Your task to perform on an android device: Open the Play Movies app and select the watchlist tab. Image 0: 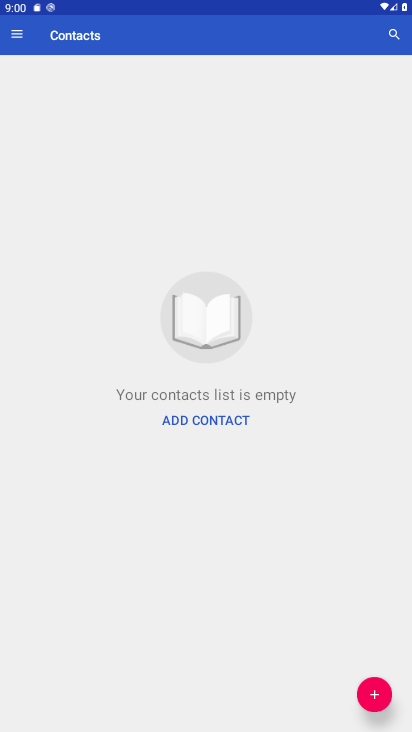
Step 0: press back button
Your task to perform on an android device: Open the Play Movies app and select the watchlist tab. Image 1: 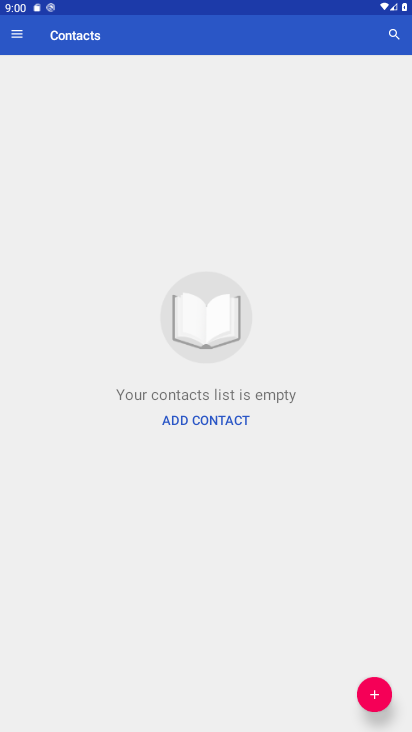
Step 1: press back button
Your task to perform on an android device: Open the Play Movies app and select the watchlist tab. Image 2: 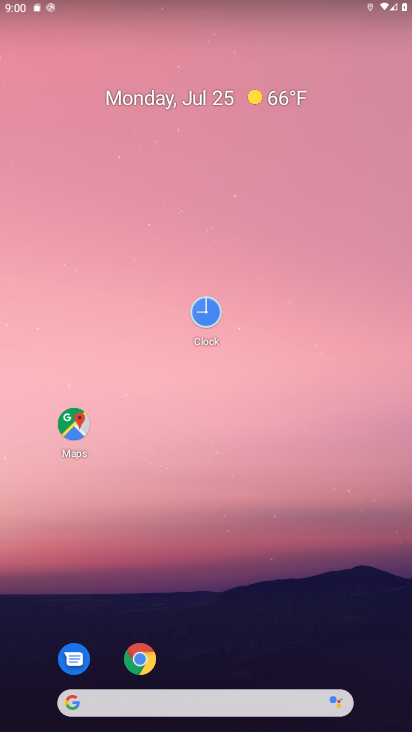
Step 2: drag from (236, 526) to (135, 149)
Your task to perform on an android device: Open the Play Movies app and select the watchlist tab. Image 3: 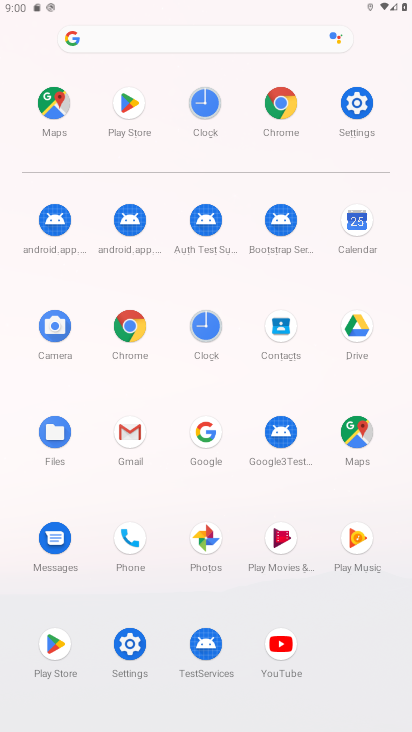
Step 3: click (278, 538)
Your task to perform on an android device: Open the Play Movies app and select the watchlist tab. Image 4: 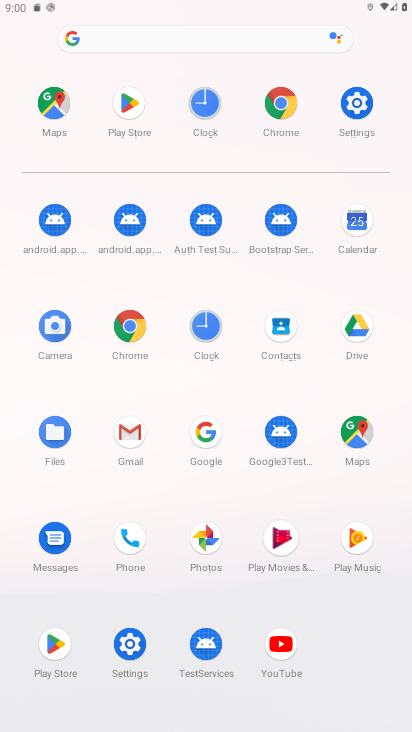
Step 4: click (275, 537)
Your task to perform on an android device: Open the Play Movies app and select the watchlist tab. Image 5: 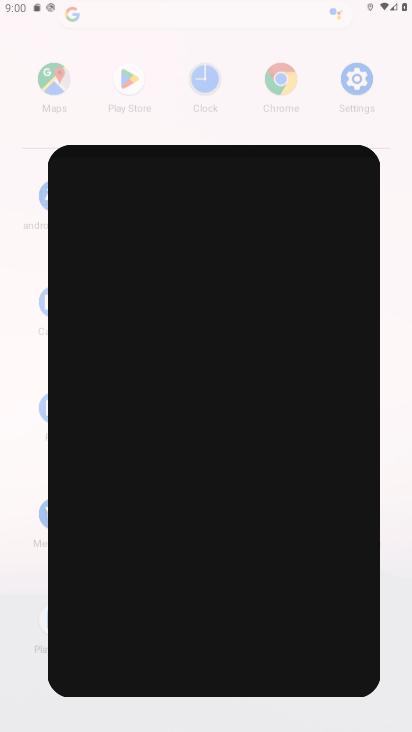
Step 5: click (279, 538)
Your task to perform on an android device: Open the Play Movies app and select the watchlist tab. Image 6: 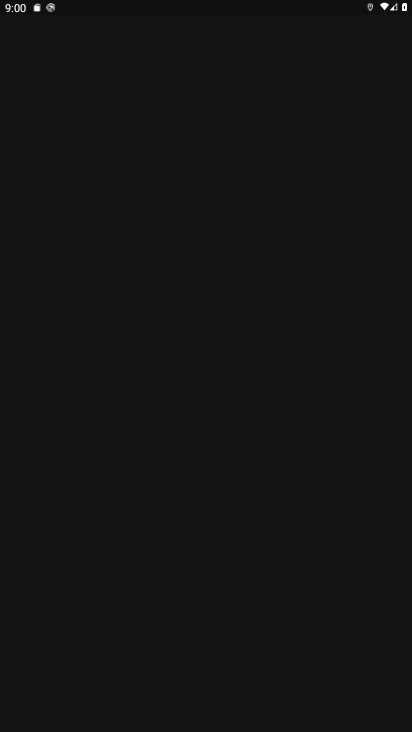
Step 6: click (280, 539)
Your task to perform on an android device: Open the Play Movies app and select the watchlist tab. Image 7: 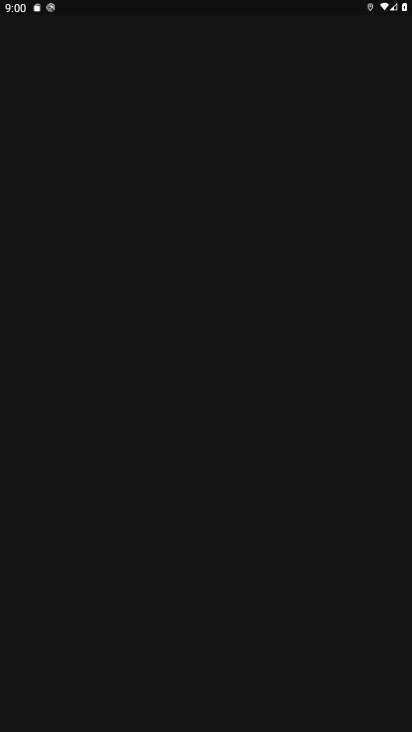
Step 7: click (281, 539)
Your task to perform on an android device: Open the Play Movies app and select the watchlist tab. Image 8: 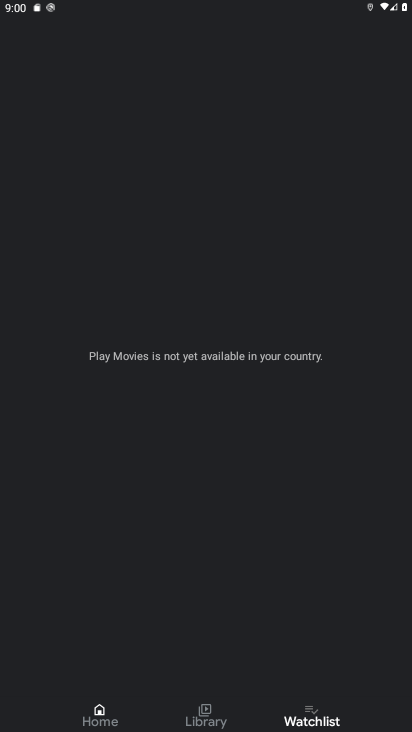
Step 8: click (329, 718)
Your task to perform on an android device: Open the Play Movies app and select the watchlist tab. Image 9: 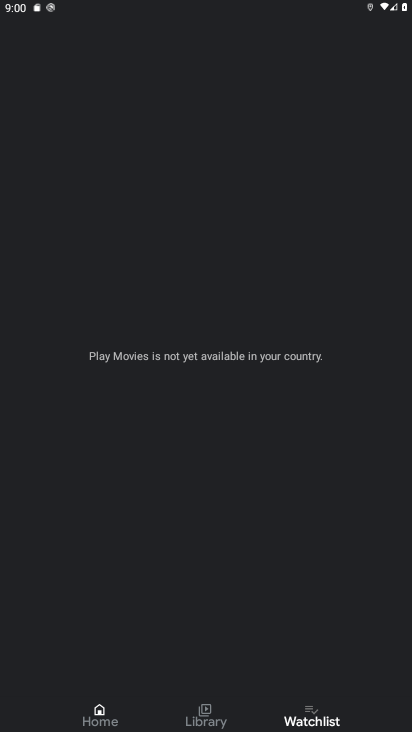
Step 9: click (324, 719)
Your task to perform on an android device: Open the Play Movies app and select the watchlist tab. Image 10: 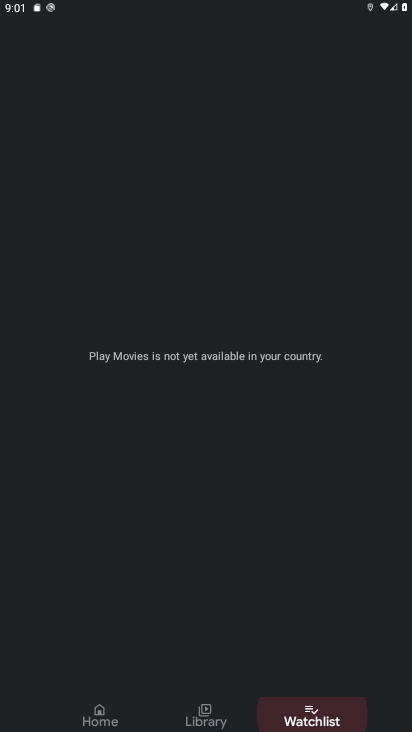
Step 10: click (315, 713)
Your task to perform on an android device: Open the Play Movies app and select the watchlist tab. Image 11: 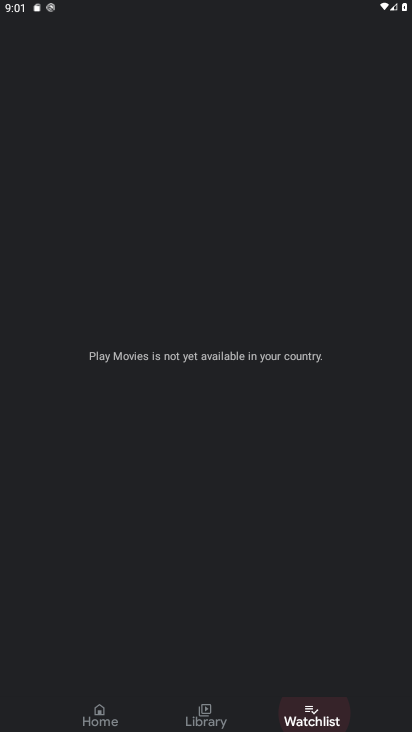
Step 11: click (316, 710)
Your task to perform on an android device: Open the Play Movies app and select the watchlist tab. Image 12: 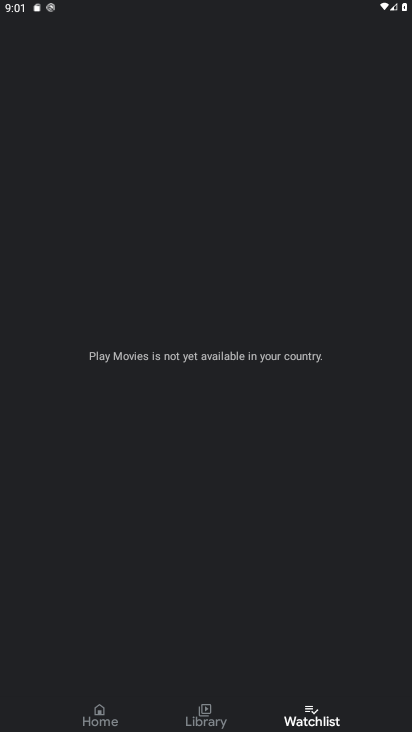
Step 12: task complete